Your task to perform on an android device: open app "PlayWell" (install if not already installed) and enter user name: "metric@gmail.com" and password: "bumblebee" Image 0: 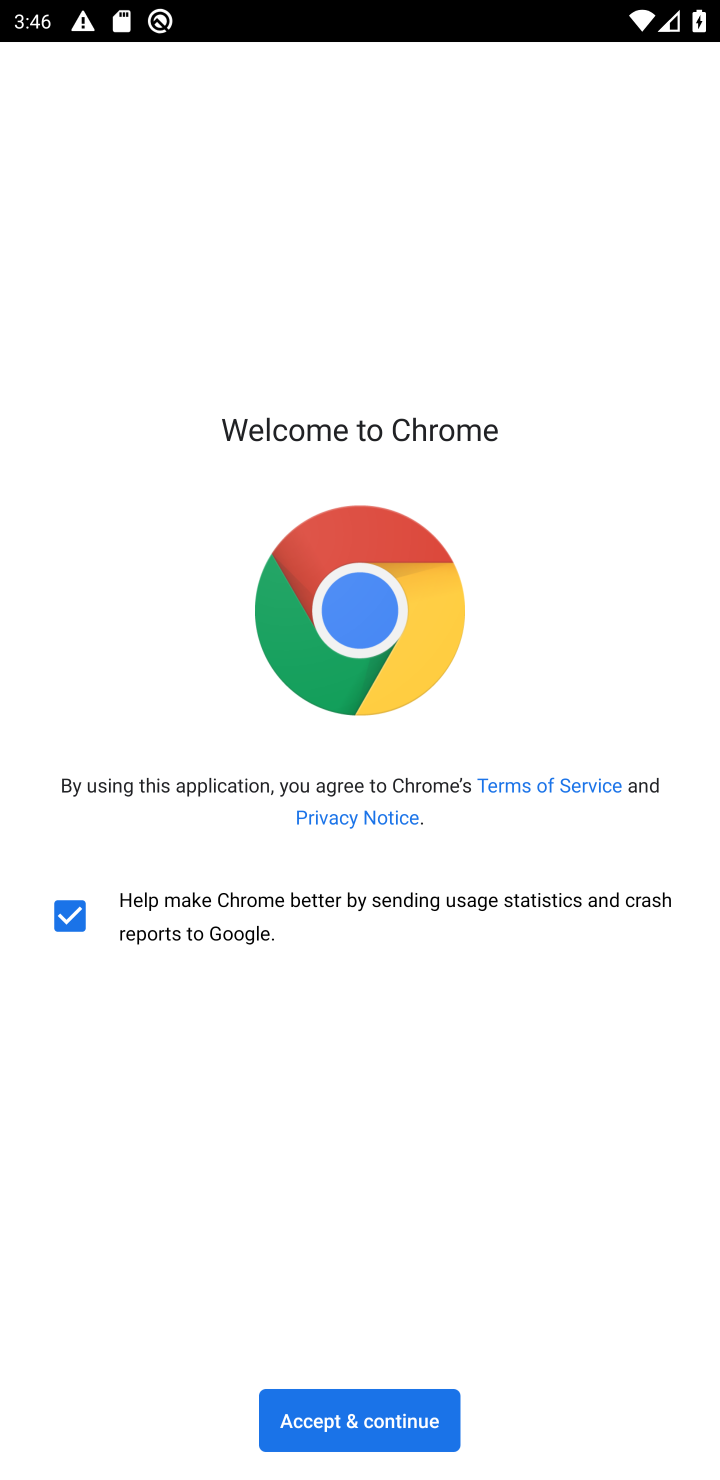
Step 0: press home button
Your task to perform on an android device: open app "PlayWell" (install if not already installed) and enter user name: "metric@gmail.com" and password: "bumblebee" Image 1: 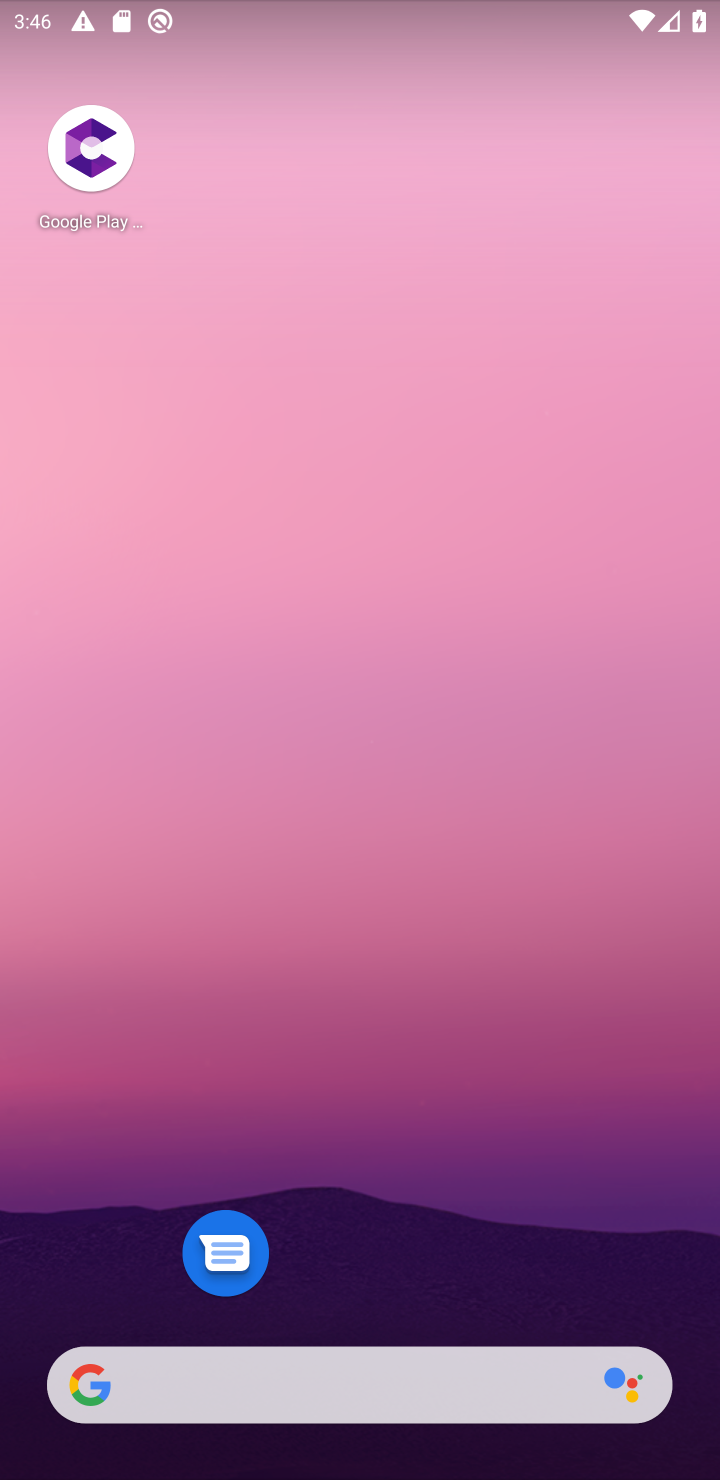
Step 1: drag from (330, 1167) to (535, 284)
Your task to perform on an android device: open app "PlayWell" (install if not already installed) and enter user name: "metric@gmail.com" and password: "bumblebee" Image 2: 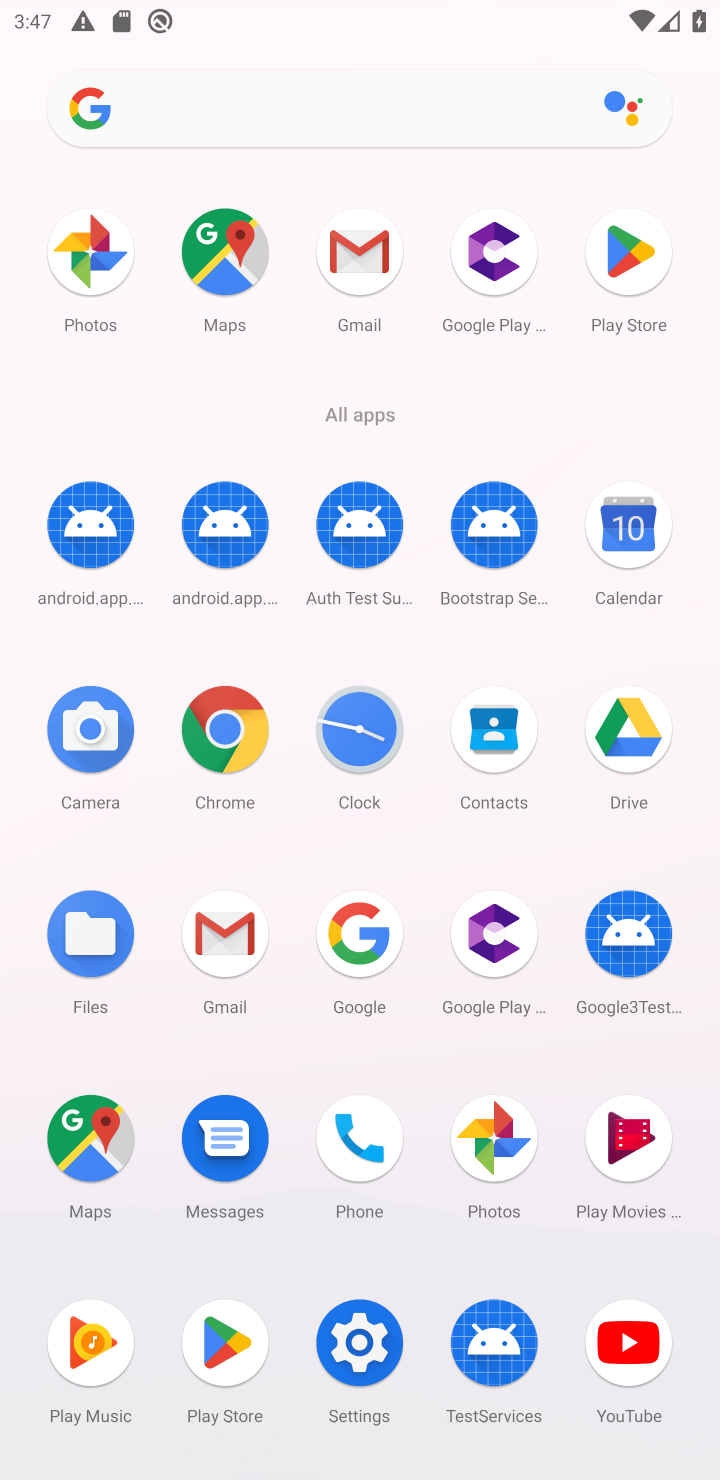
Step 2: click (627, 230)
Your task to perform on an android device: open app "PlayWell" (install if not already installed) and enter user name: "metric@gmail.com" and password: "bumblebee" Image 3: 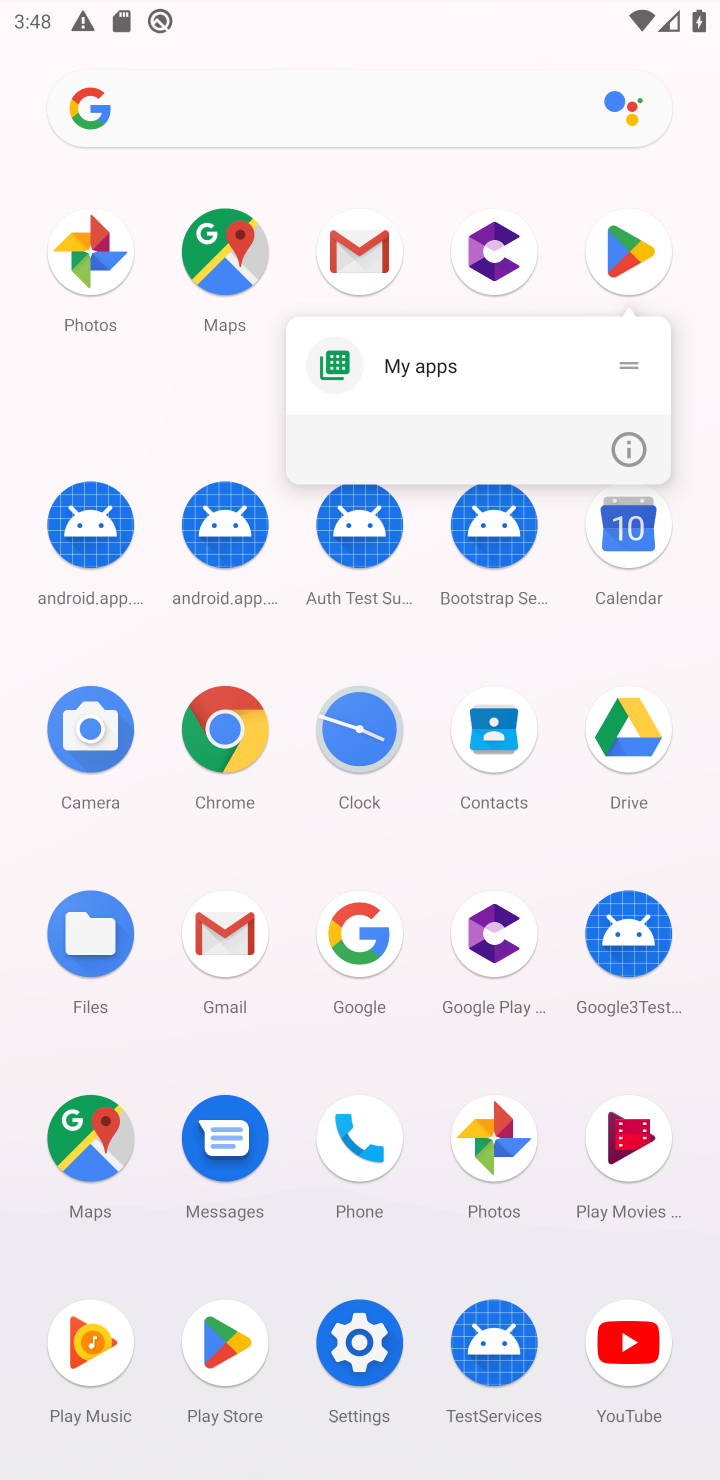
Step 3: click (624, 268)
Your task to perform on an android device: open app "PlayWell" (install if not already installed) and enter user name: "metric@gmail.com" and password: "bumblebee" Image 4: 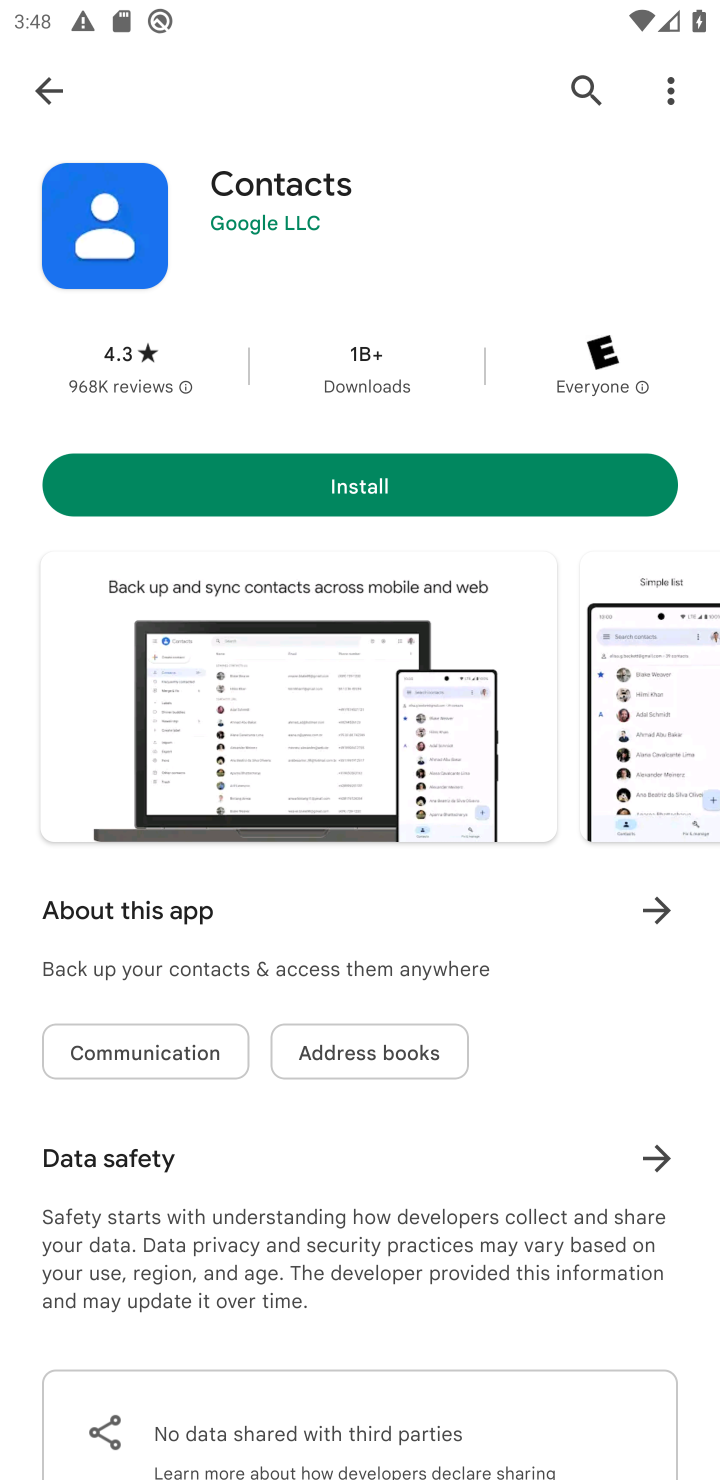
Step 4: click (55, 108)
Your task to perform on an android device: open app "PlayWell" (install if not already installed) and enter user name: "metric@gmail.com" and password: "bumblebee" Image 5: 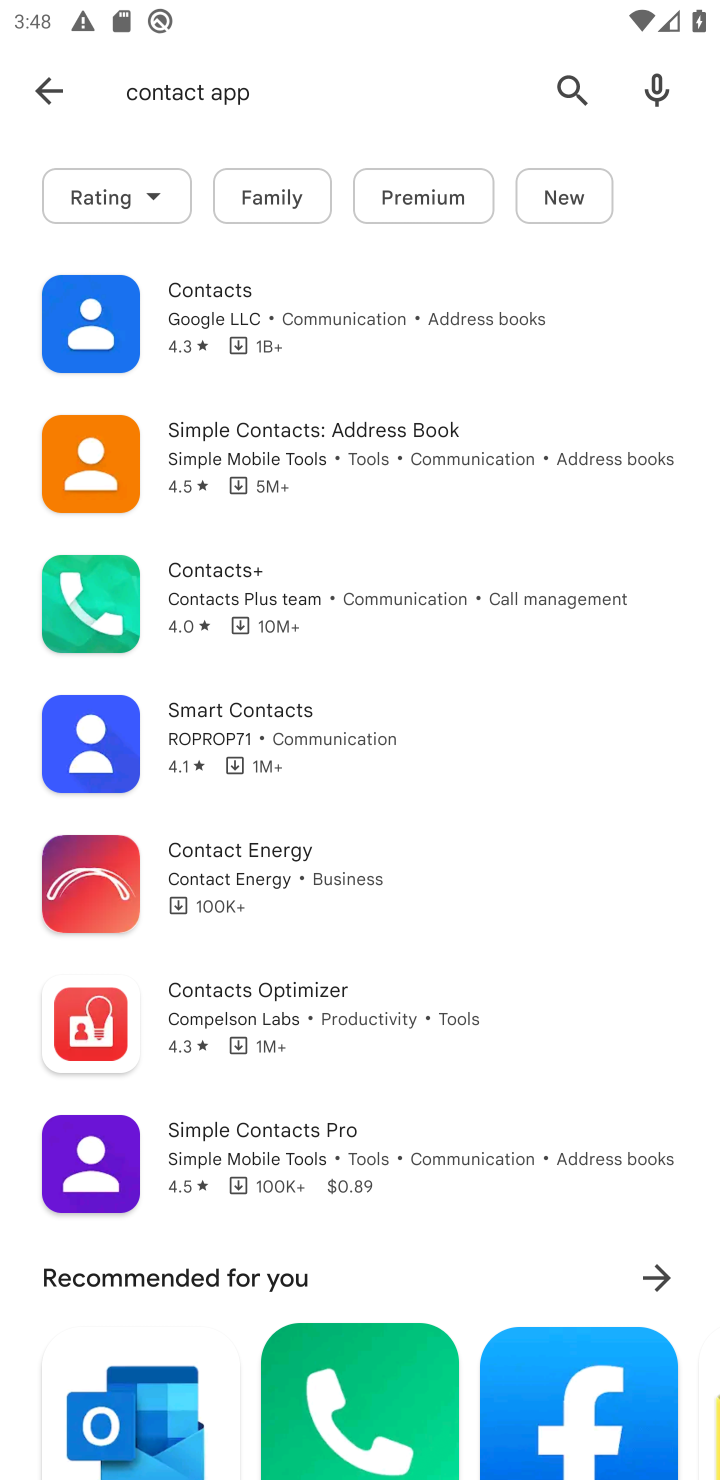
Step 5: click (55, 108)
Your task to perform on an android device: open app "PlayWell" (install if not already installed) and enter user name: "metric@gmail.com" and password: "bumblebee" Image 6: 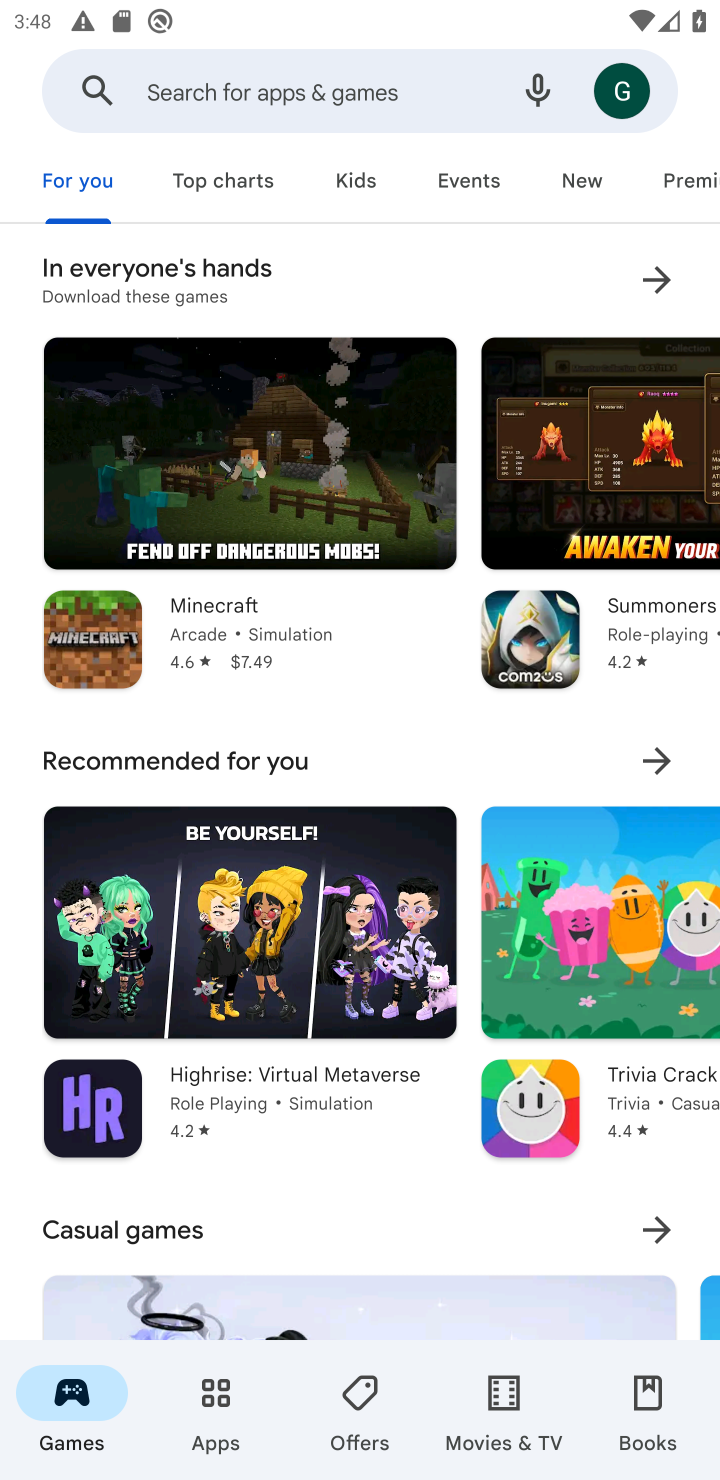
Step 6: click (376, 83)
Your task to perform on an android device: open app "PlayWell" (install if not already installed) and enter user name: "metric@gmail.com" and password: "bumblebee" Image 7: 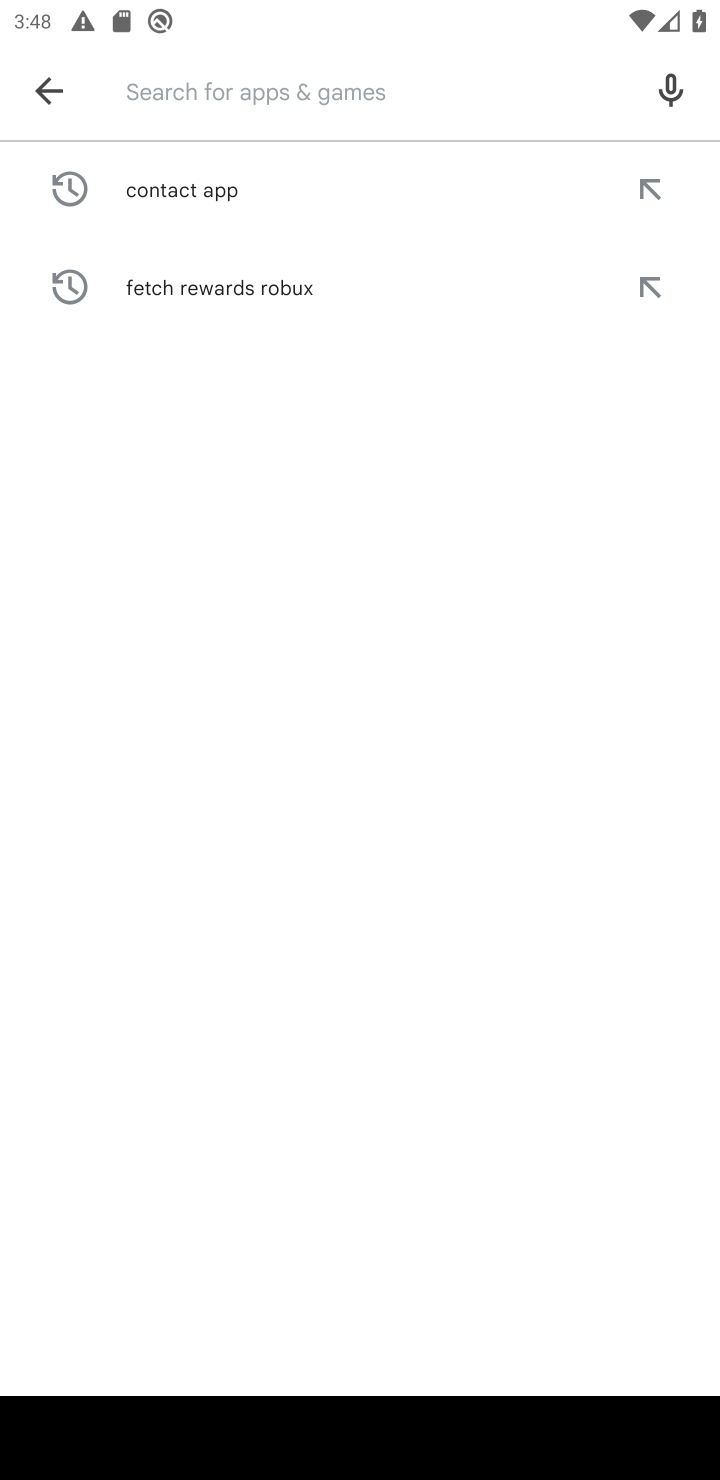
Step 7: type "play well "
Your task to perform on an android device: open app "PlayWell" (install if not already installed) and enter user name: "metric@gmail.com" and password: "bumblebee" Image 8: 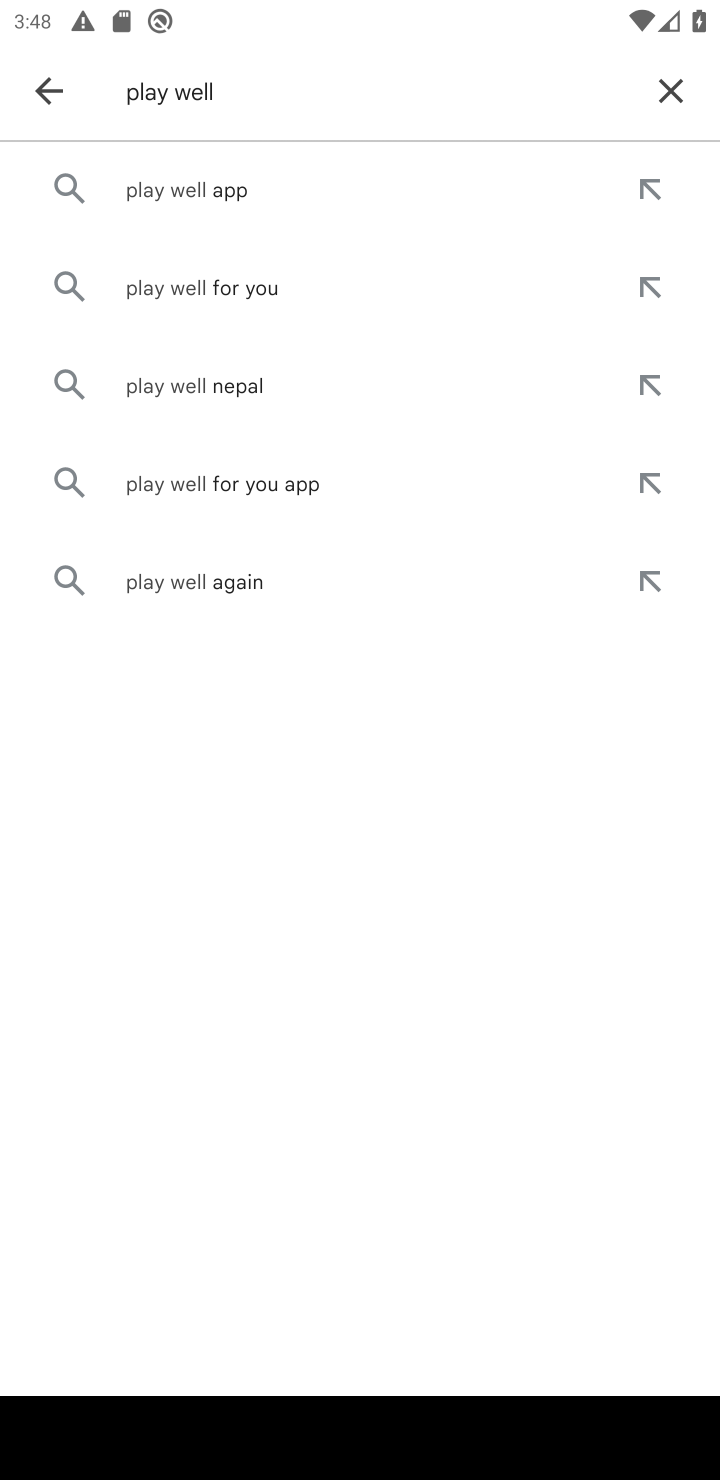
Step 8: click (215, 179)
Your task to perform on an android device: open app "PlayWell" (install if not already installed) and enter user name: "metric@gmail.com" and password: "bumblebee" Image 9: 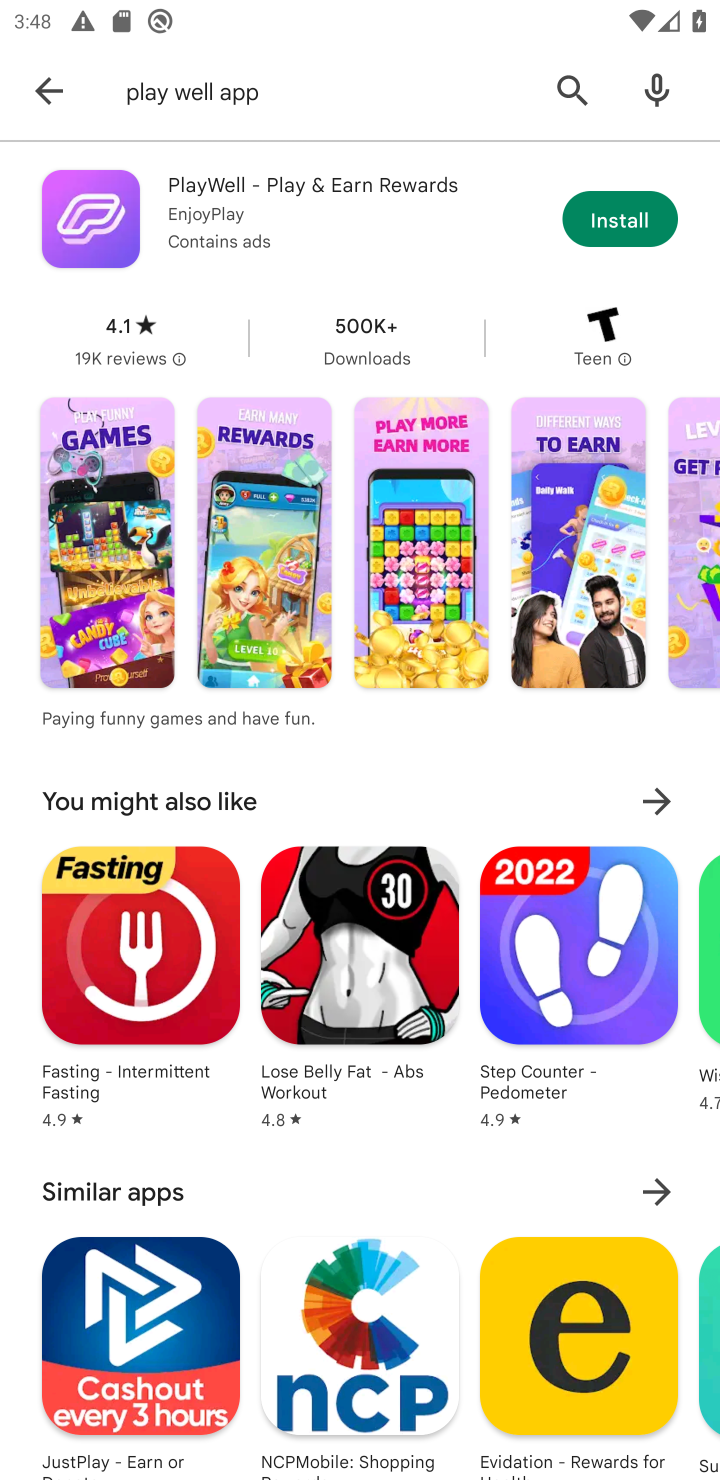
Step 9: click (620, 210)
Your task to perform on an android device: open app "PlayWell" (install if not already installed) and enter user name: "metric@gmail.com" and password: "bumblebee" Image 10: 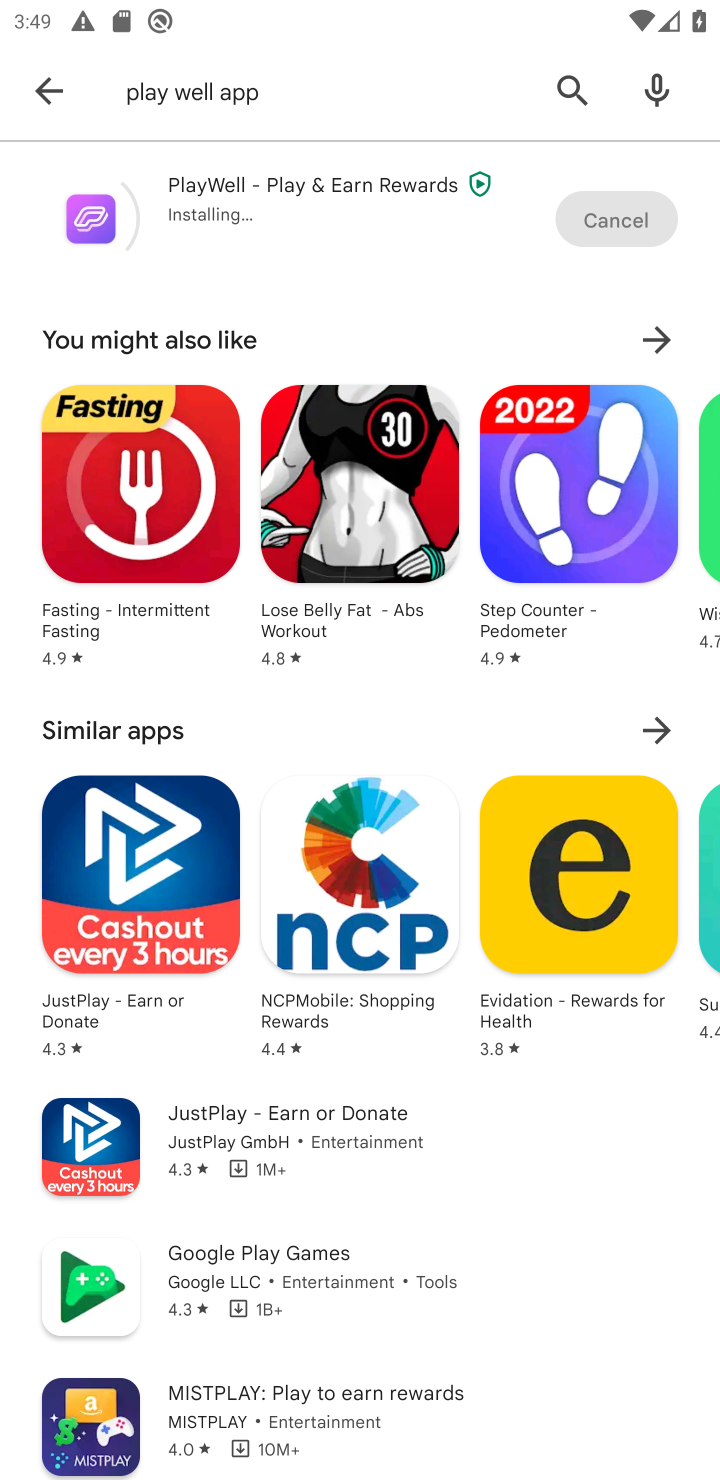
Step 10: task complete